Your task to perform on an android device: Go to battery settings Image 0: 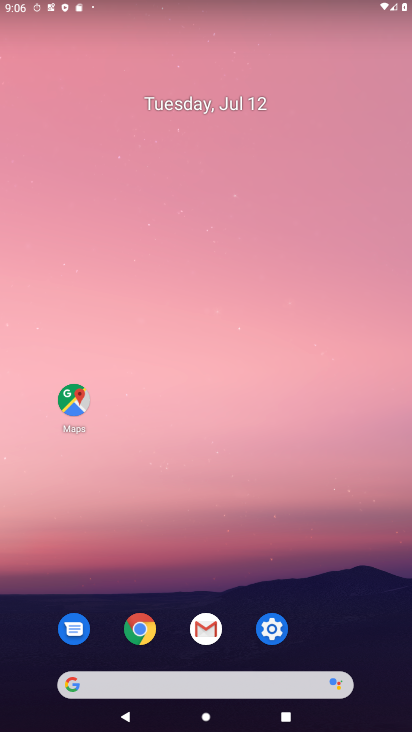
Step 0: click (279, 643)
Your task to perform on an android device: Go to battery settings Image 1: 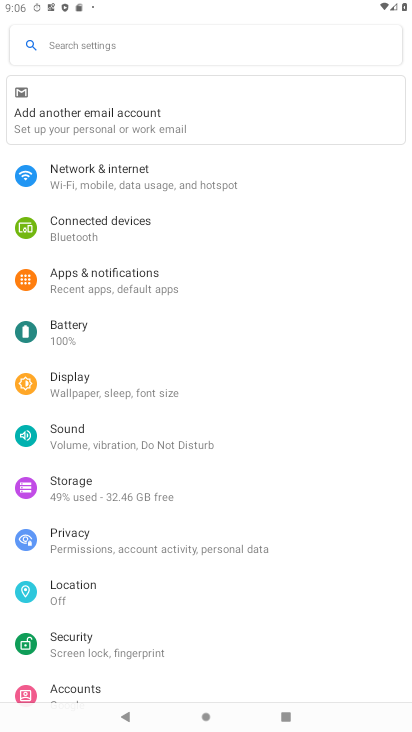
Step 1: click (100, 347)
Your task to perform on an android device: Go to battery settings Image 2: 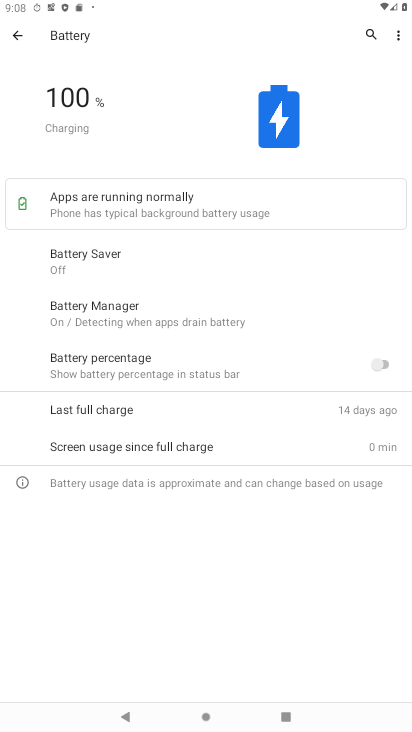
Step 2: task complete